Your task to perform on an android device: toggle translation in the chrome app Image 0: 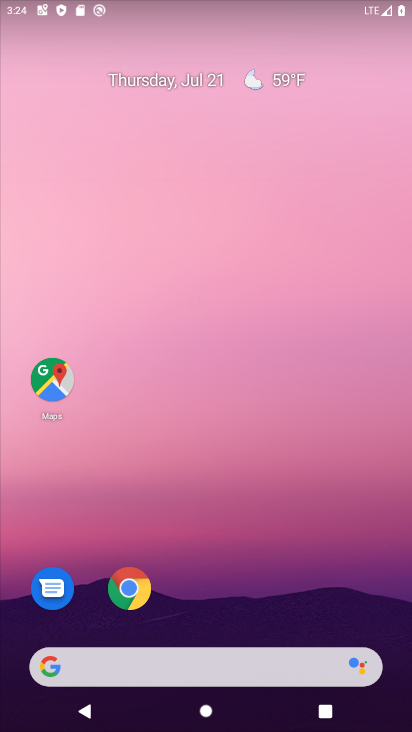
Step 0: click (140, 579)
Your task to perform on an android device: toggle translation in the chrome app Image 1: 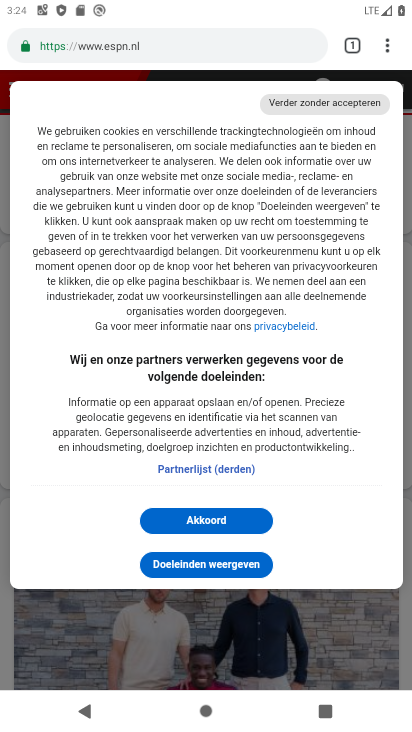
Step 1: click (393, 42)
Your task to perform on an android device: toggle translation in the chrome app Image 2: 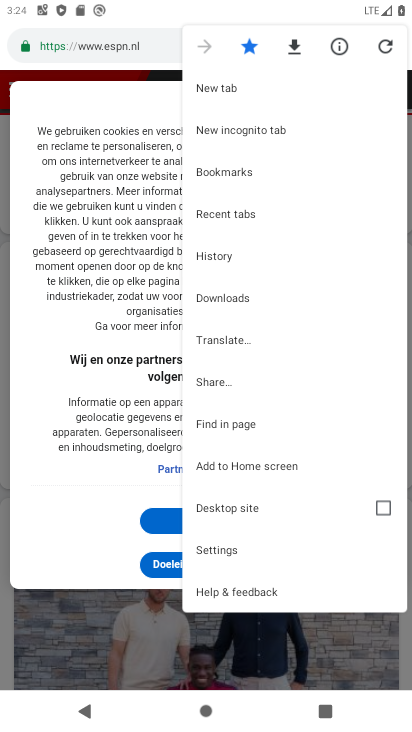
Step 2: click (231, 544)
Your task to perform on an android device: toggle translation in the chrome app Image 3: 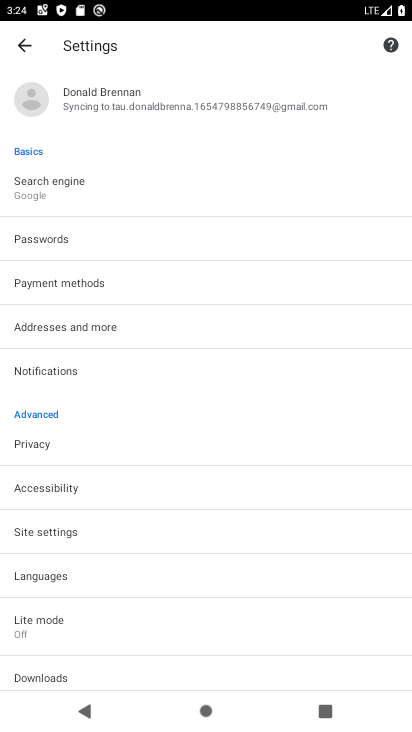
Step 3: click (150, 572)
Your task to perform on an android device: toggle translation in the chrome app Image 4: 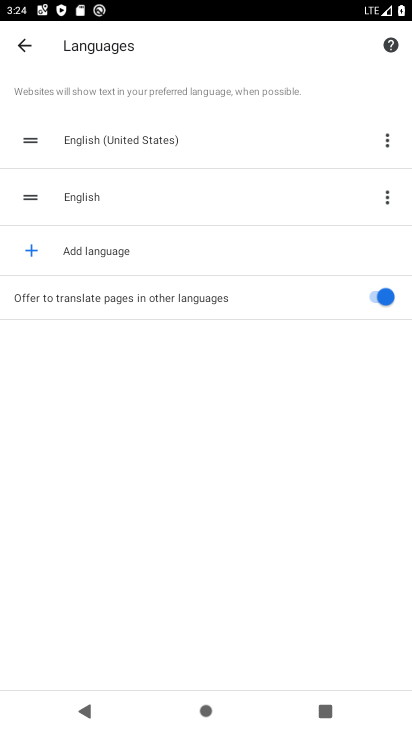
Step 4: click (356, 299)
Your task to perform on an android device: toggle translation in the chrome app Image 5: 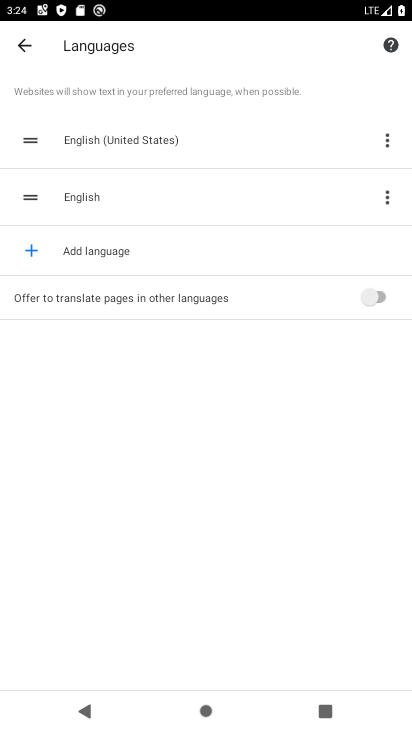
Step 5: task complete